Your task to perform on an android device: delete a single message in the gmail app Image 0: 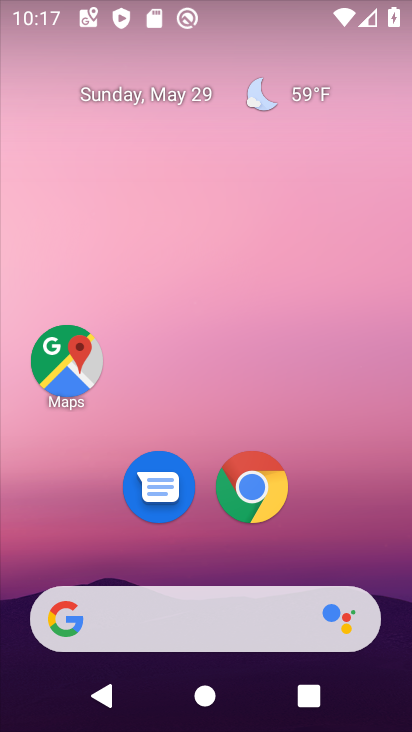
Step 0: drag from (393, 708) to (353, 275)
Your task to perform on an android device: delete a single message in the gmail app Image 1: 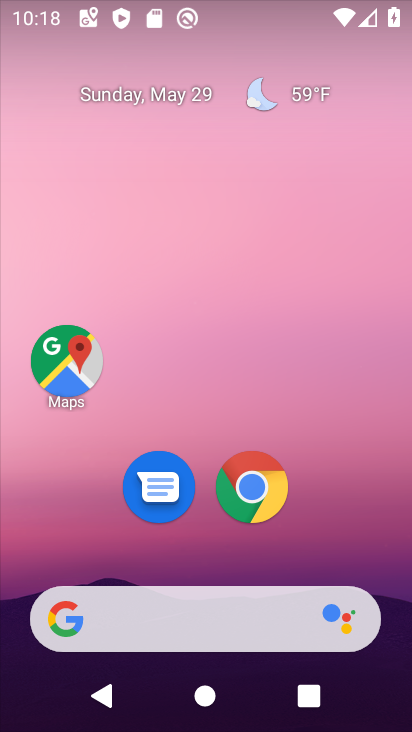
Step 1: drag from (386, 701) to (342, 193)
Your task to perform on an android device: delete a single message in the gmail app Image 2: 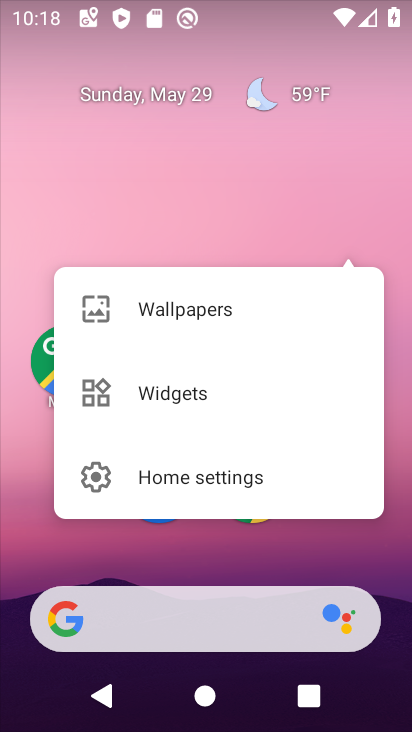
Step 2: click (395, 564)
Your task to perform on an android device: delete a single message in the gmail app Image 3: 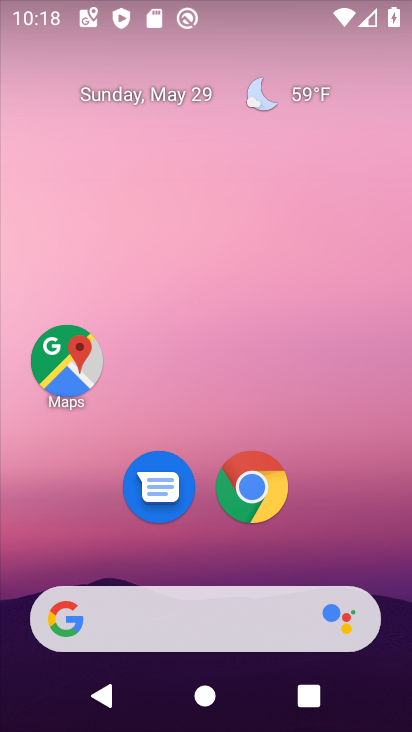
Step 3: drag from (385, 706) to (313, 151)
Your task to perform on an android device: delete a single message in the gmail app Image 4: 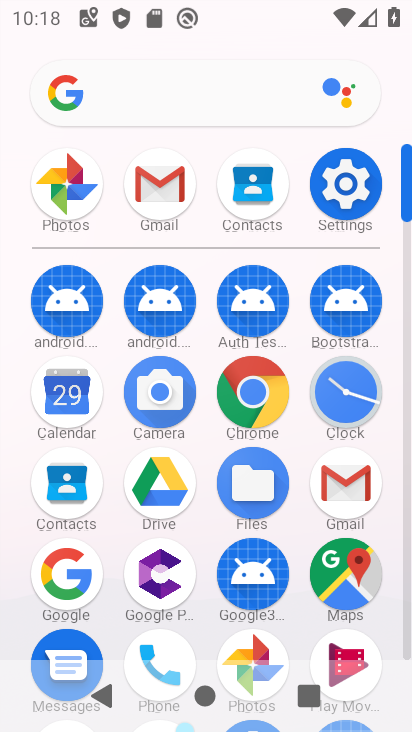
Step 4: click (322, 496)
Your task to perform on an android device: delete a single message in the gmail app Image 5: 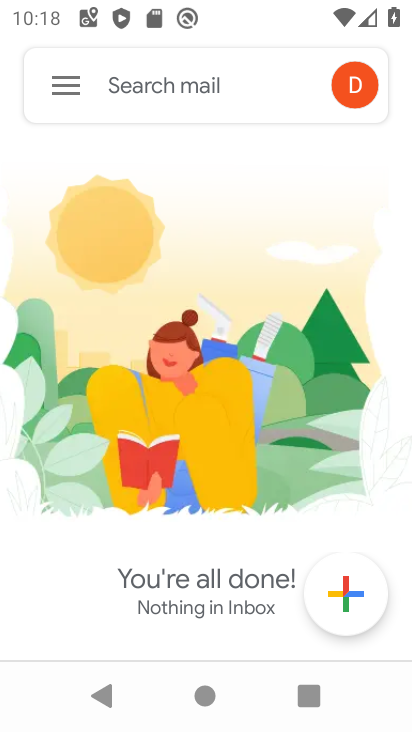
Step 5: click (55, 72)
Your task to perform on an android device: delete a single message in the gmail app Image 6: 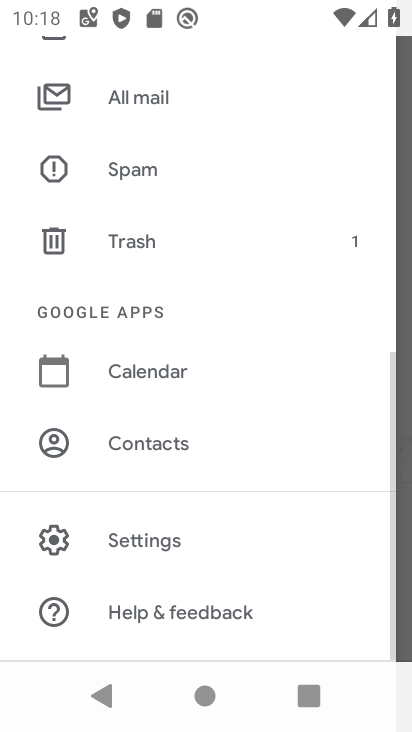
Step 6: drag from (247, 130) to (263, 505)
Your task to perform on an android device: delete a single message in the gmail app Image 7: 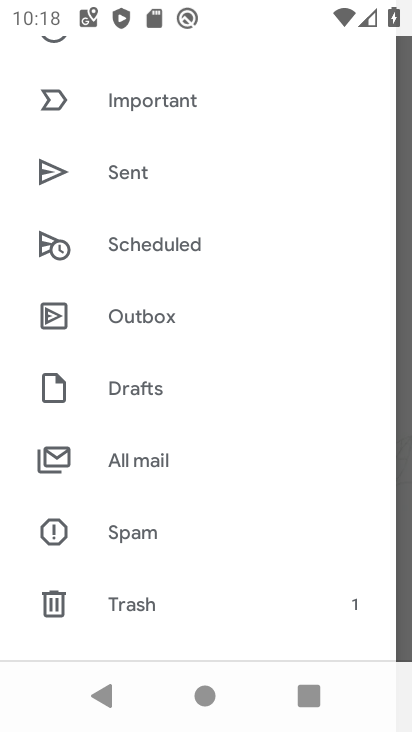
Step 7: drag from (300, 128) to (292, 486)
Your task to perform on an android device: delete a single message in the gmail app Image 8: 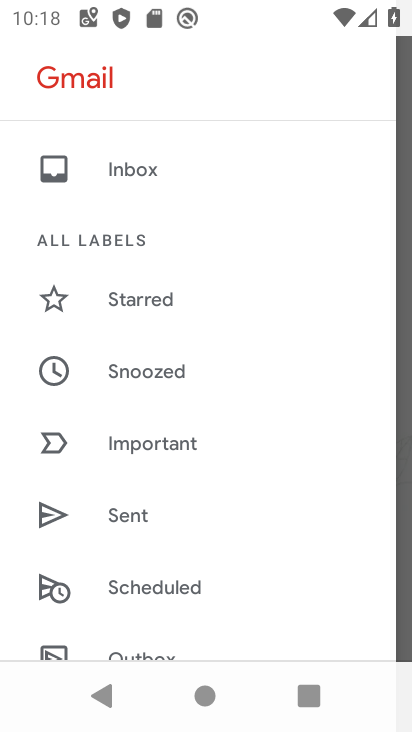
Step 8: click (125, 163)
Your task to perform on an android device: delete a single message in the gmail app Image 9: 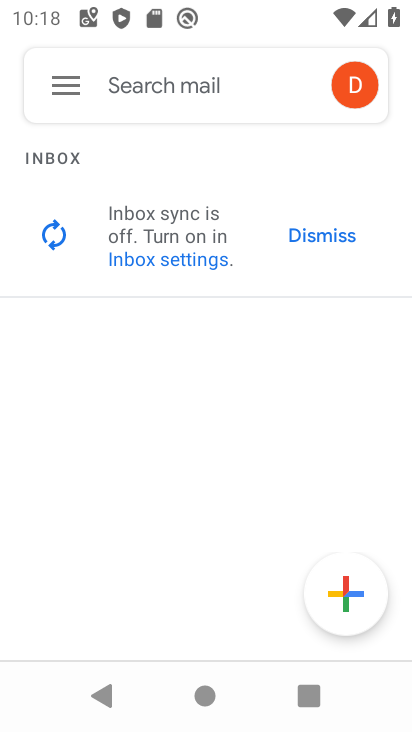
Step 9: task complete